Your task to perform on an android device: Set the phone to "Do not disturb". Image 0: 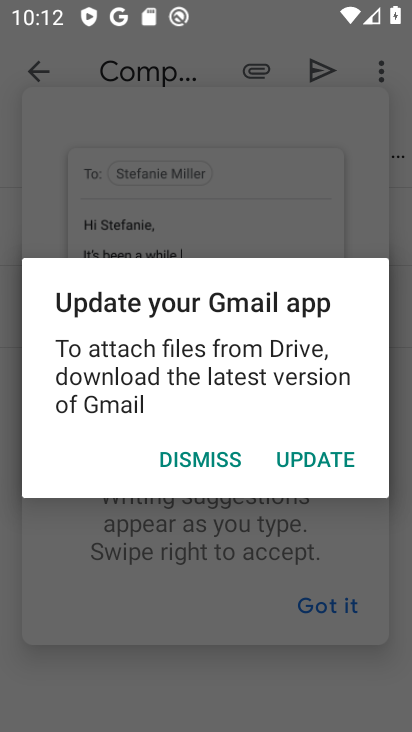
Step 0: press home button
Your task to perform on an android device: Set the phone to "Do not disturb". Image 1: 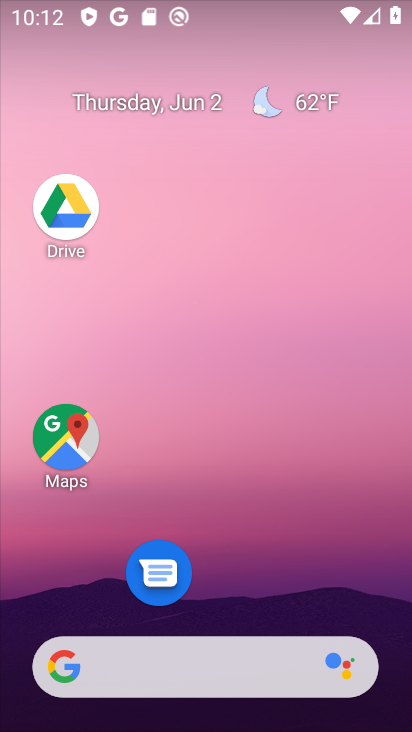
Step 1: drag from (315, 15) to (266, 460)
Your task to perform on an android device: Set the phone to "Do not disturb". Image 2: 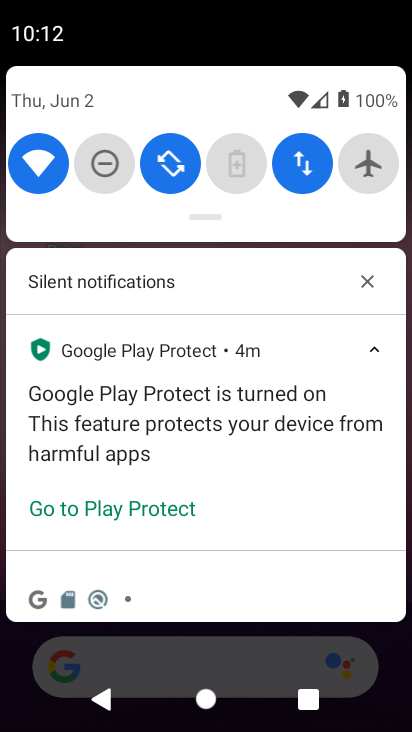
Step 2: click (84, 172)
Your task to perform on an android device: Set the phone to "Do not disturb". Image 3: 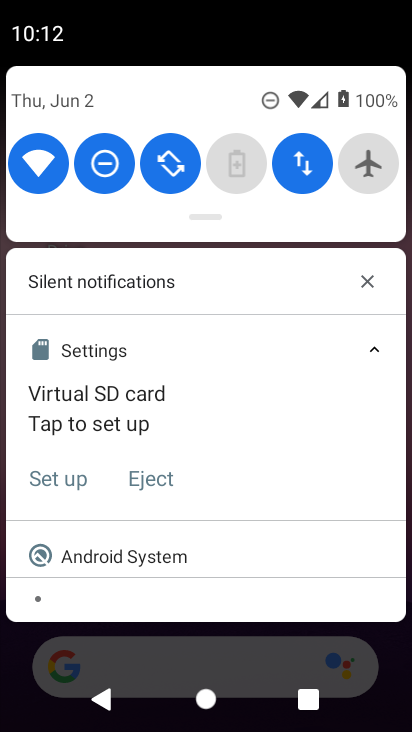
Step 3: task complete